Your task to perform on an android device: Search for "bose soundlink" on costco.com, select the first entry, add it to the cart, then select checkout. Image 0: 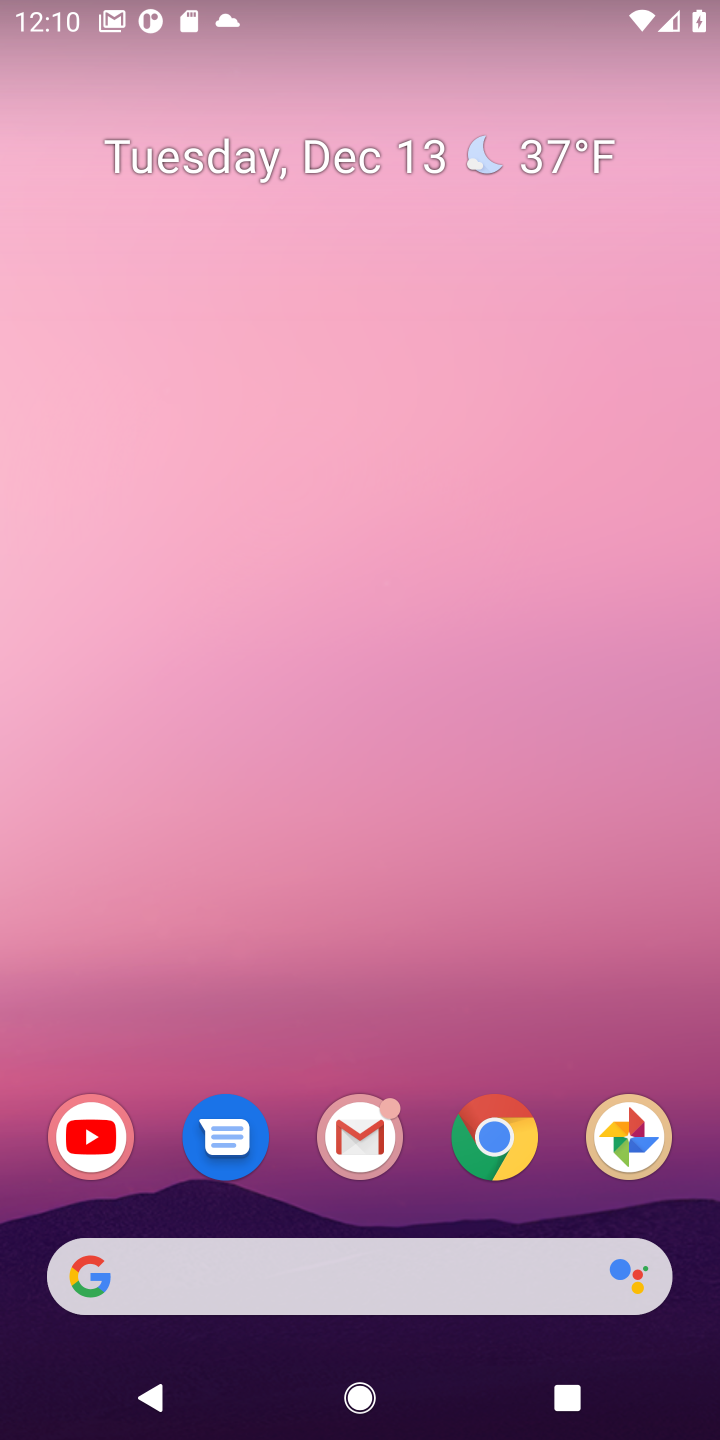
Step 0: click (387, 1270)
Your task to perform on an android device: Search for "bose soundlink" on costco.com, select the first entry, add it to the cart, then select checkout. Image 1: 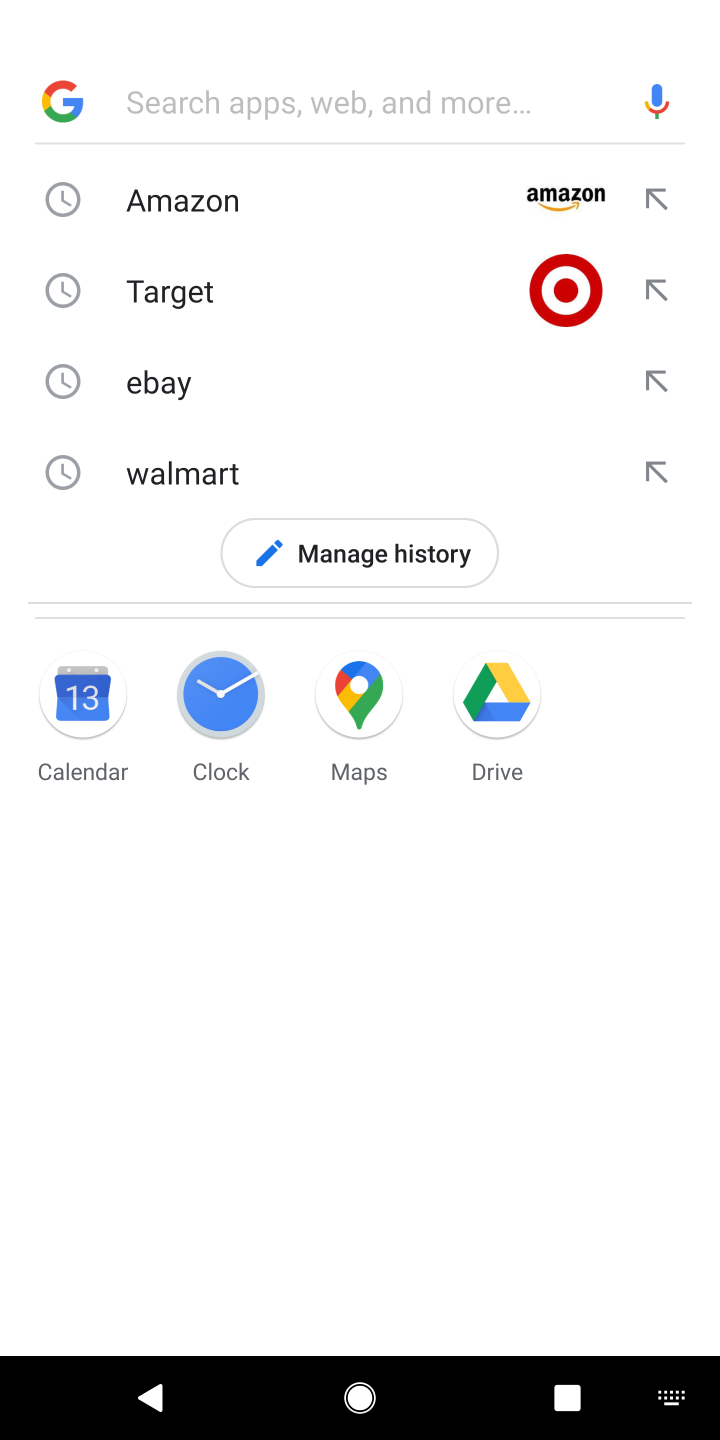
Step 1: type "costco"
Your task to perform on an android device: Search for "bose soundlink" on costco.com, select the first entry, add it to the cart, then select checkout. Image 2: 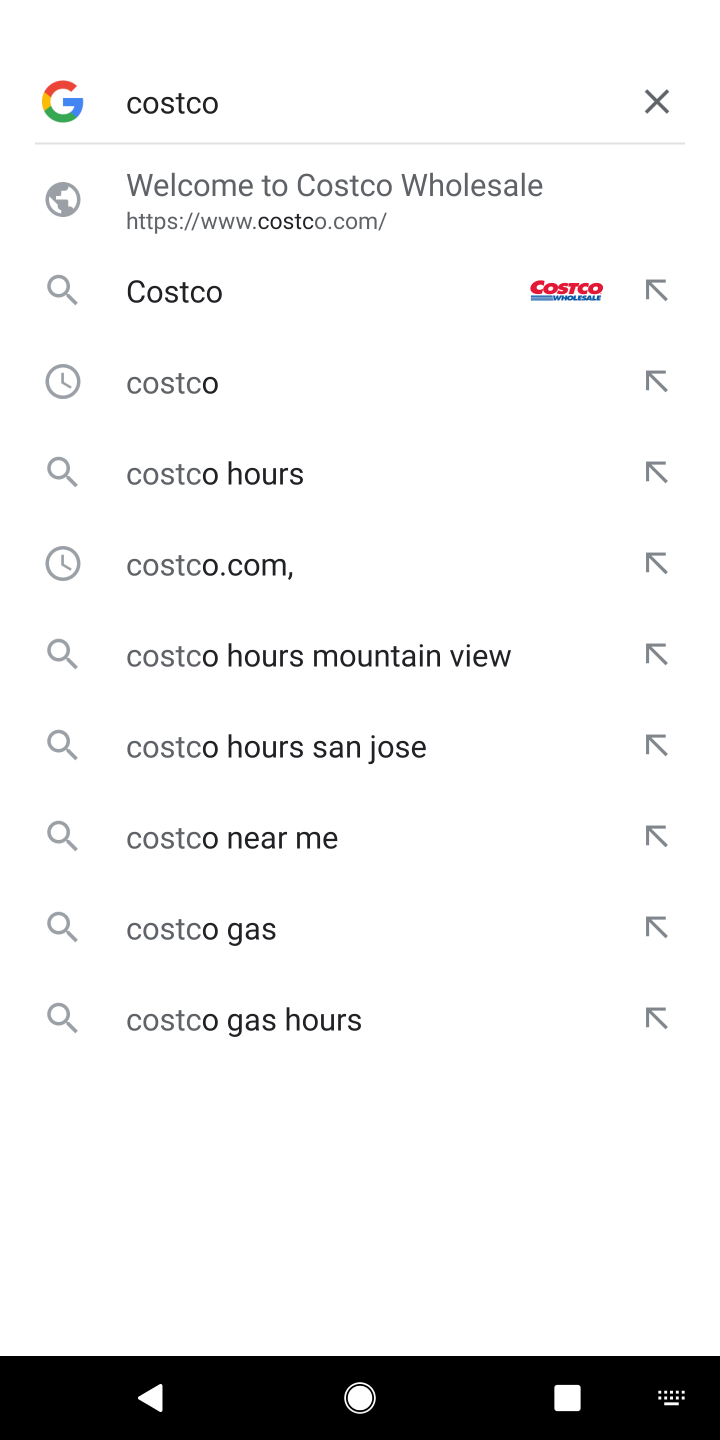
Step 2: click (181, 186)
Your task to perform on an android device: Search for "bose soundlink" on costco.com, select the first entry, add it to the cart, then select checkout. Image 3: 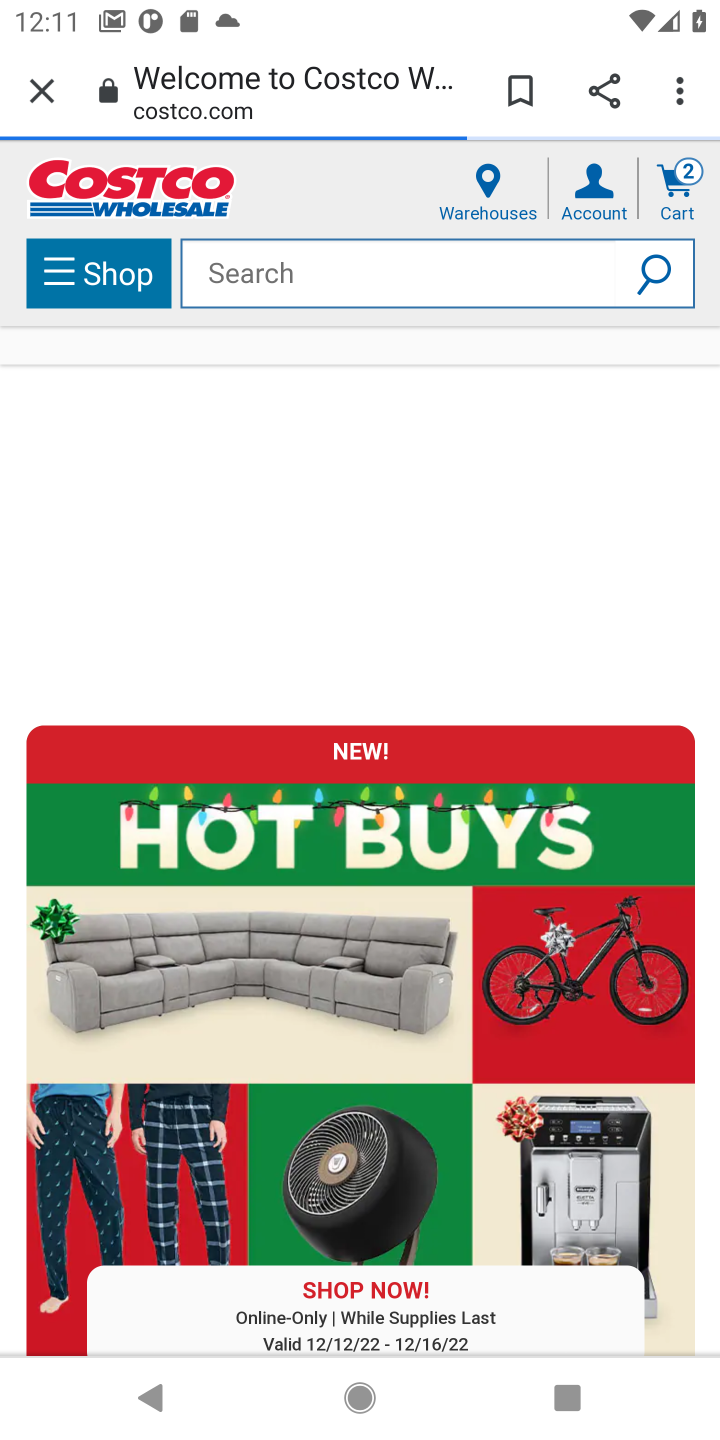
Step 3: click (319, 290)
Your task to perform on an android device: Search for "bose soundlink" on costco.com, select the first entry, add it to the cart, then select checkout. Image 4: 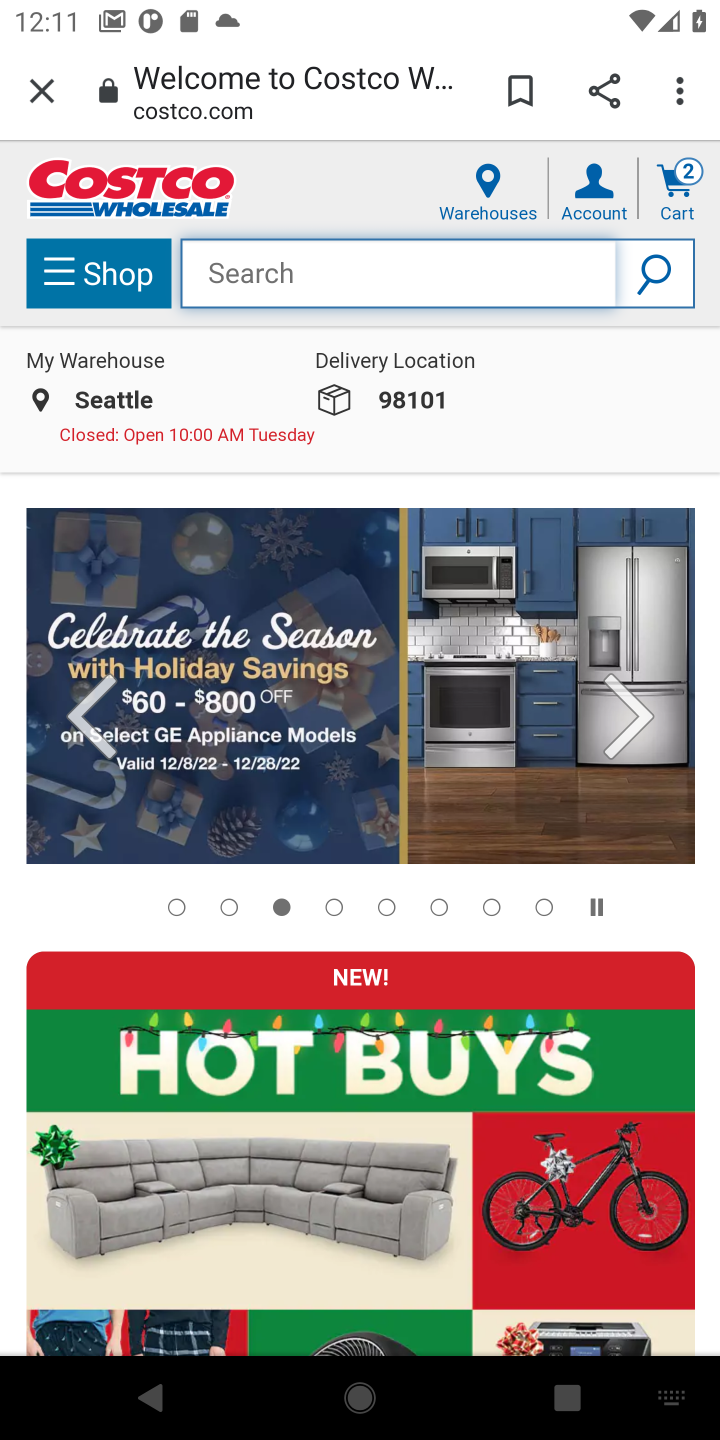
Step 4: type "bose soundlink"
Your task to perform on an android device: Search for "bose soundlink" on costco.com, select the first entry, add it to the cart, then select checkout. Image 5: 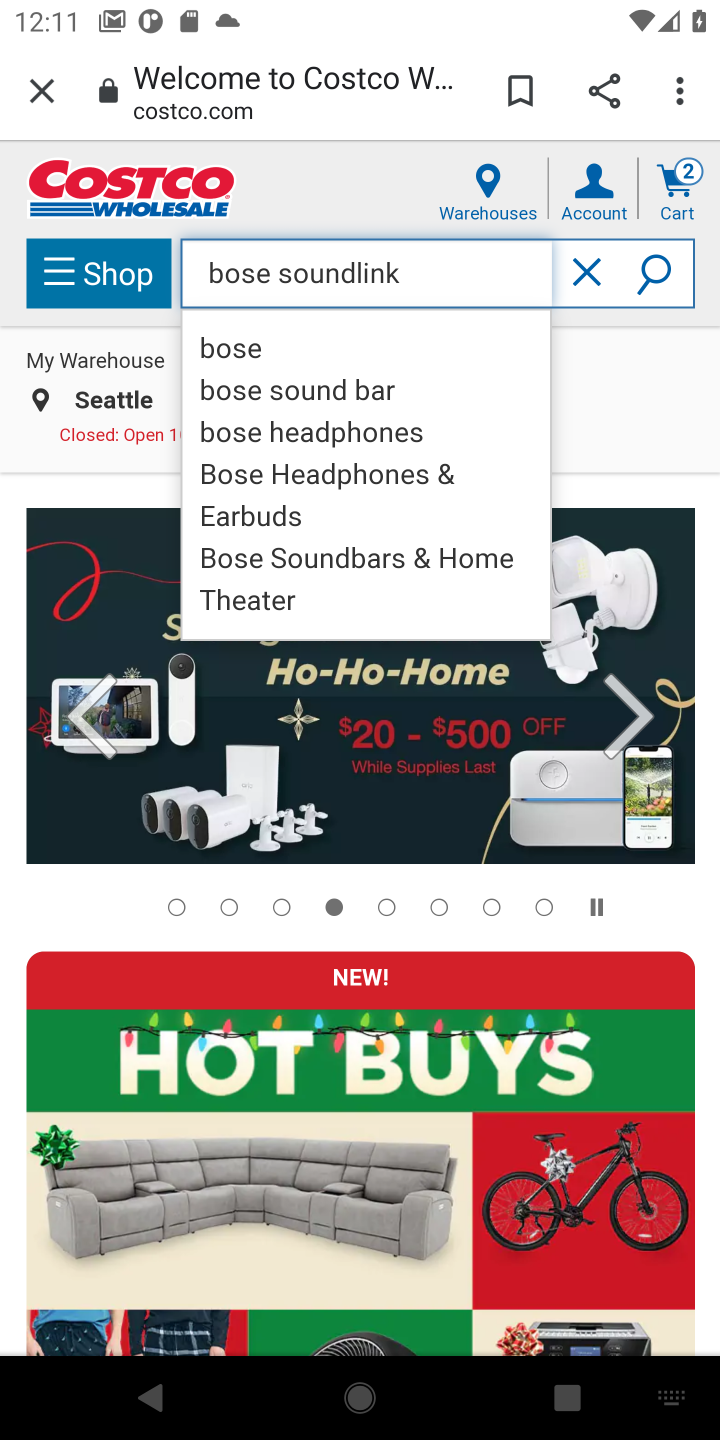
Step 5: click (652, 288)
Your task to perform on an android device: Search for "bose soundlink" on costco.com, select the first entry, add it to the cart, then select checkout. Image 6: 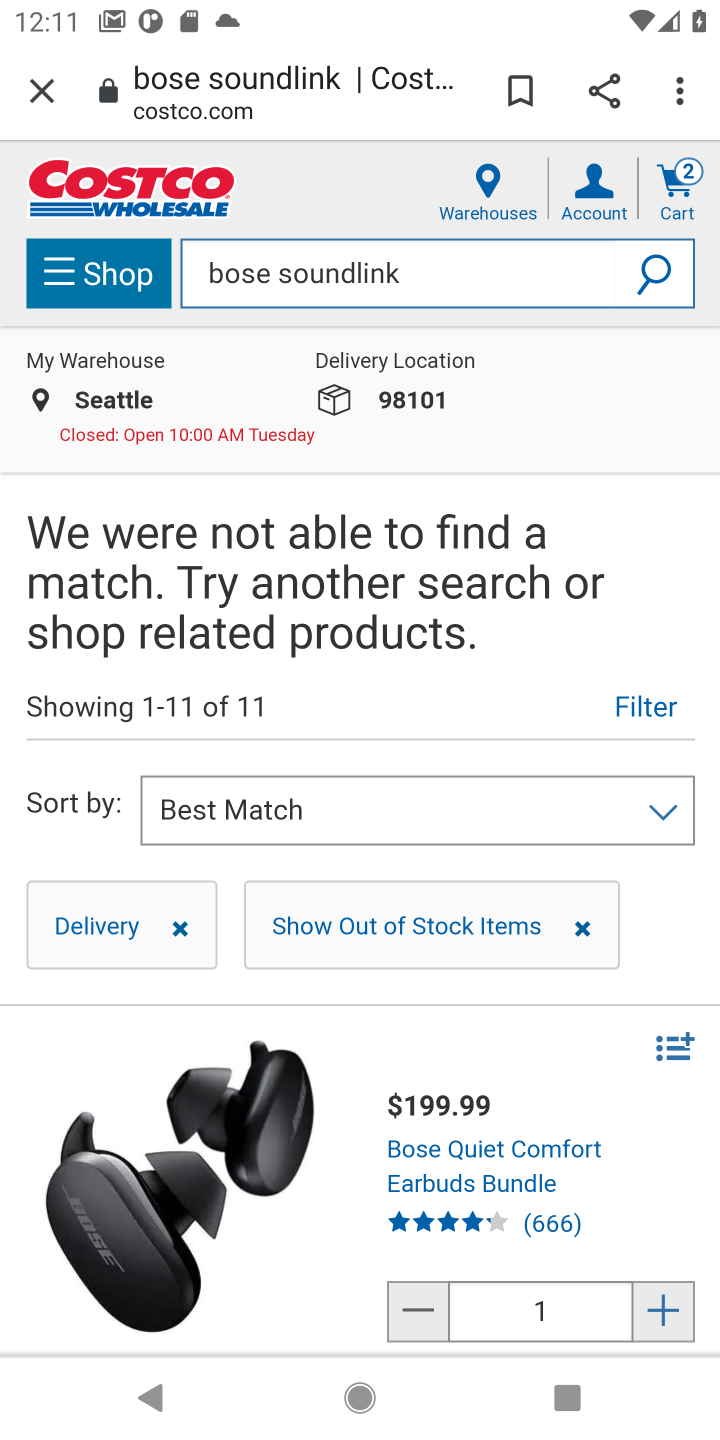
Step 6: task complete